Your task to perform on an android device: When is my next meeting? Image 0: 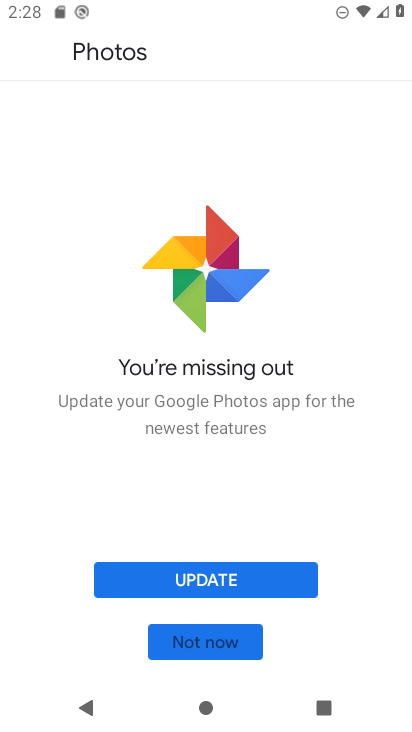
Step 0: press home button
Your task to perform on an android device: When is my next meeting? Image 1: 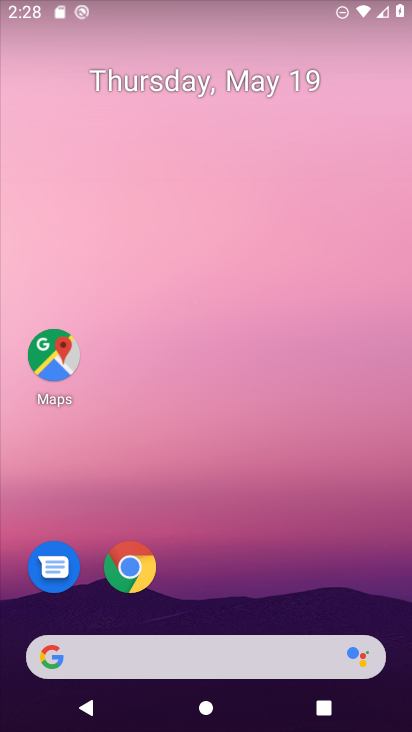
Step 1: drag from (239, 564) to (218, 86)
Your task to perform on an android device: When is my next meeting? Image 2: 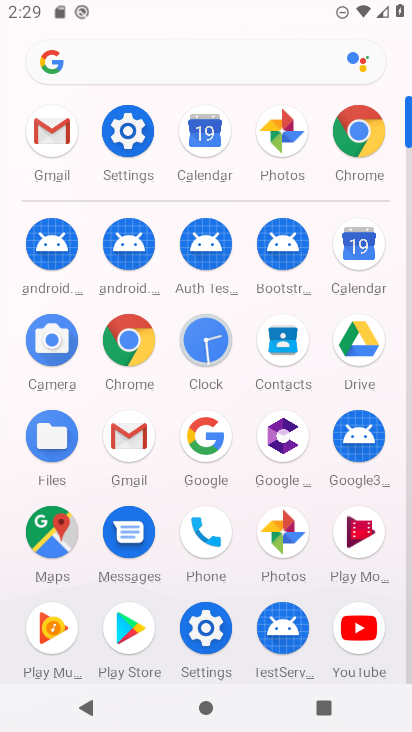
Step 2: click (205, 137)
Your task to perform on an android device: When is my next meeting? Image 3: 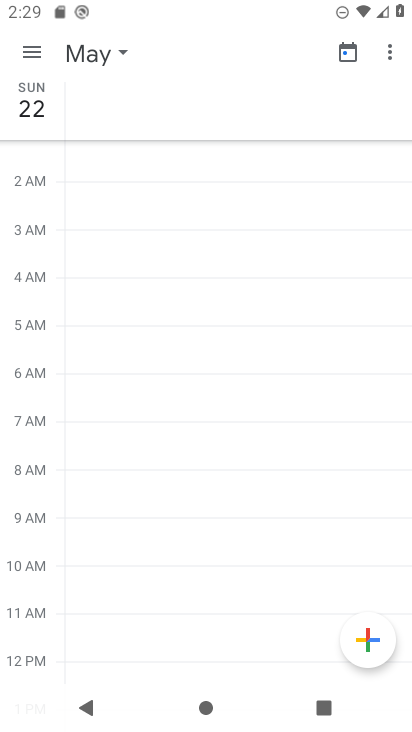
Step 3: click (32, 53)
Your task to perform on an android device: When is my next meeting? Image 4: 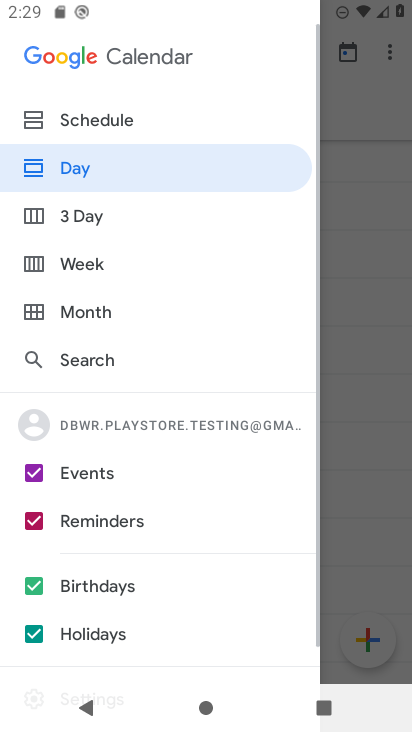
Step 4: click (40, 299)
Your task to perform on an android device: When is my next meeting? Image 5: 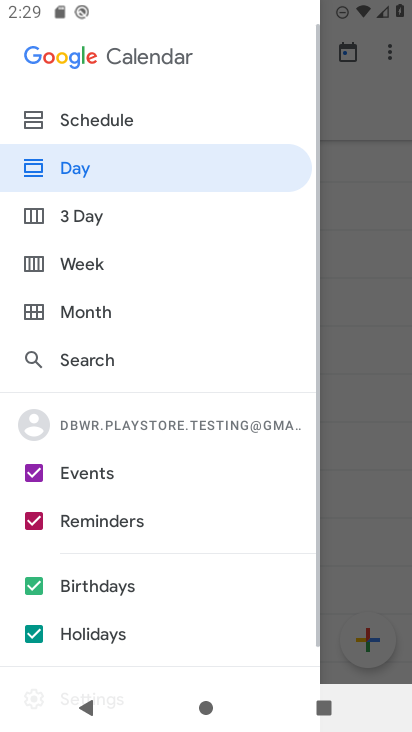
Step 5: click (33, 307)
Your task to perform on an android device: When is my next meeting? Image 6: 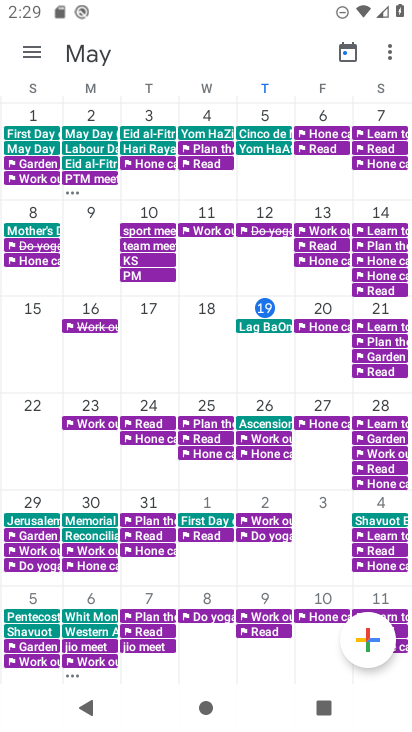
Step 6: click (265, 311)
Your task to perform on an android device: When is my next meeting? Image 7: 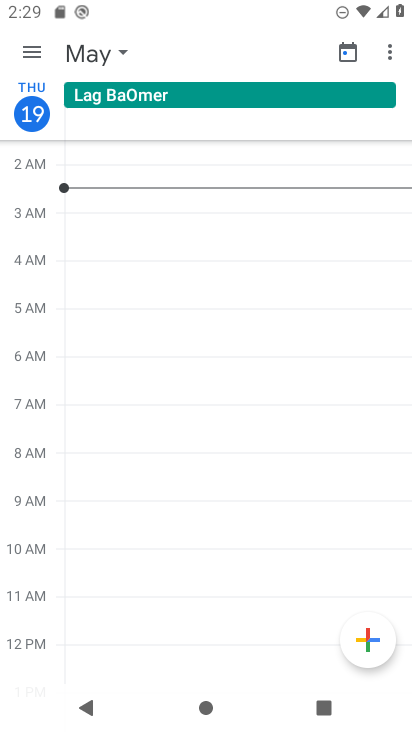
Step 7: click (35, 51)
Your task to perform on an android device: When is my next meeting? Image 8: 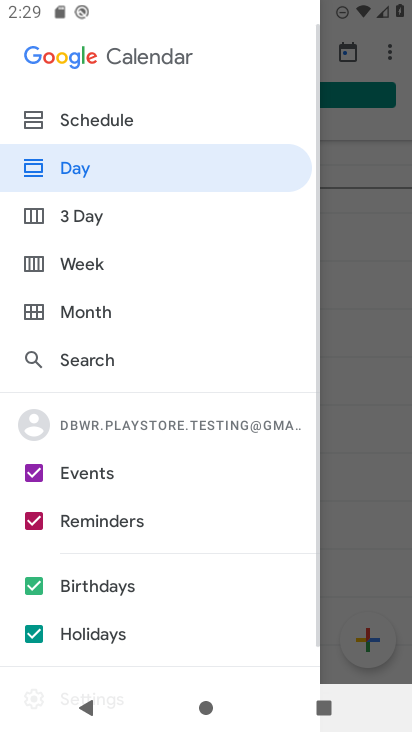
Step 8: click (83, 112)
Your task to perform on an android device: When is my next meeting? Image 9: 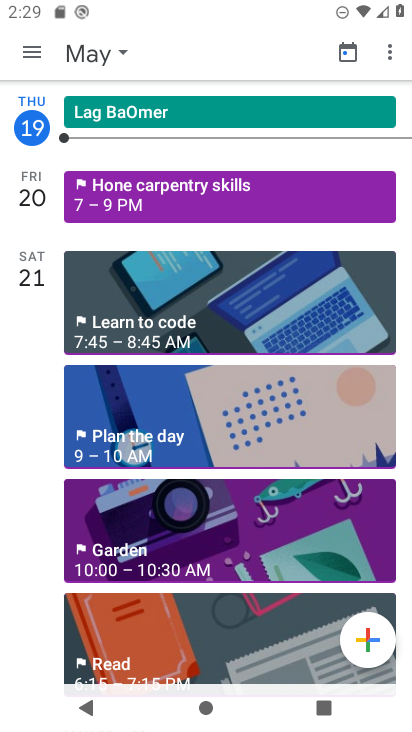
Step 9: task complete